Your task to perform on an android device: Open Google Image 0: 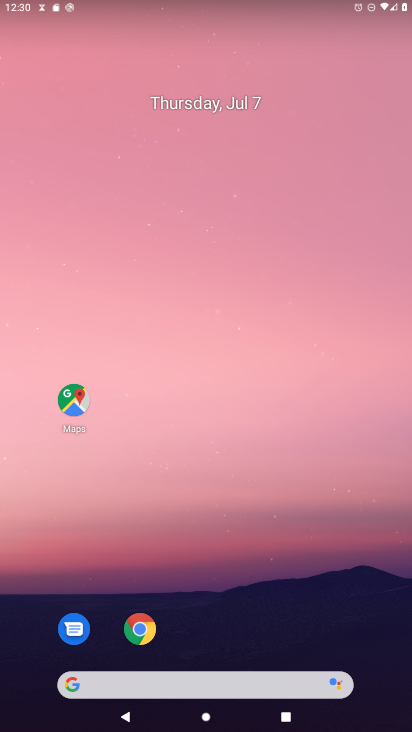
Step 0: drag from (189, 630) to (204, 134)
Your task to perform on an android device: Open Google Image 1: 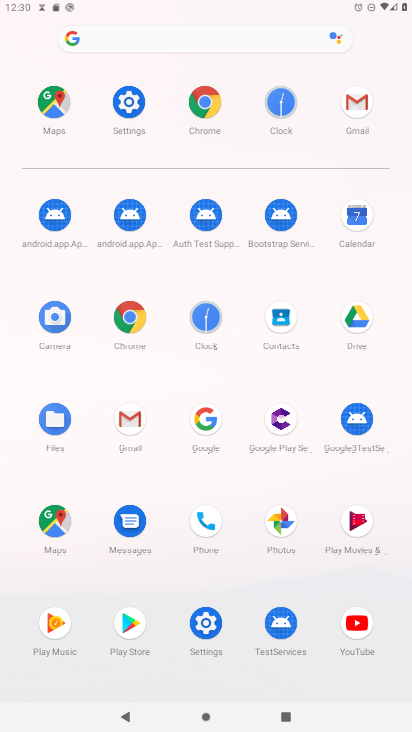
Step 1: click (213, 427)
Your task to perform on an android device: Open Google Image 2: 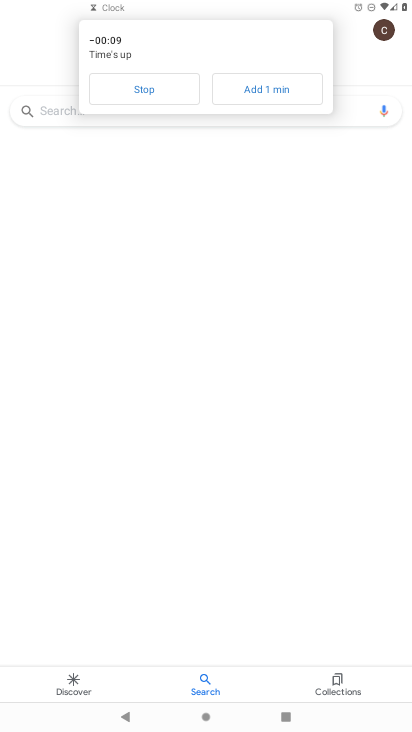
Step 2: click (190, 86)
Your task to perform on an android device: Open Google Image 3: 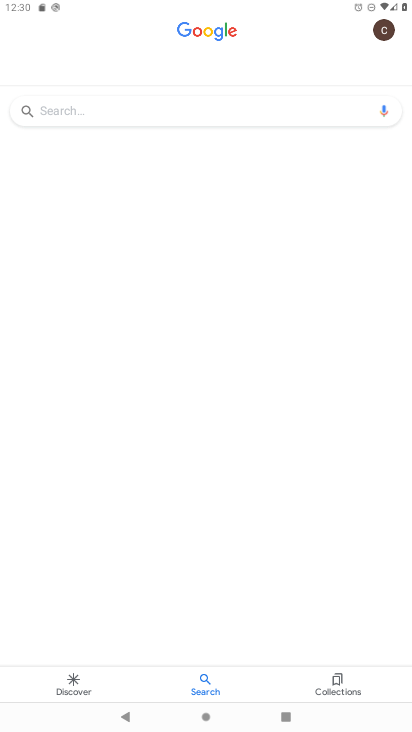
Step 3: task complete